Your task to perform on an android device: Go to settings Image 0: 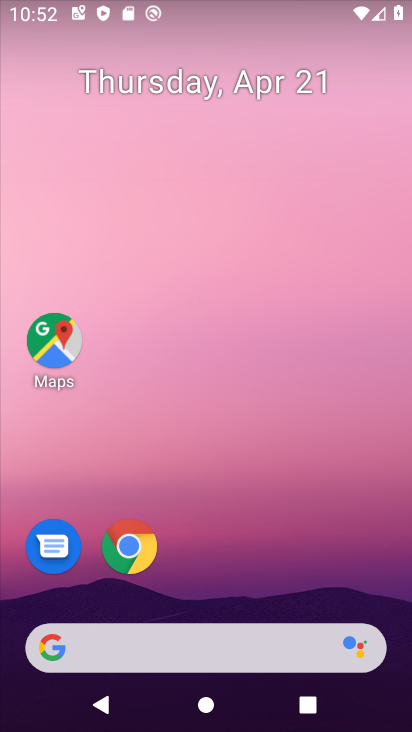
Step 0: drag from (301, 580) to (301, 101)
Your task to perform on an android device: Go to settings Image 1: 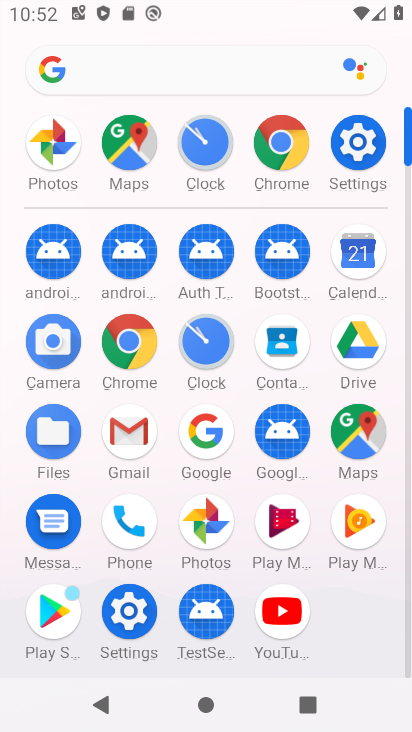
Step 1: click (124, 617)
Your task to perform on an android device: Go to settings Image 2: 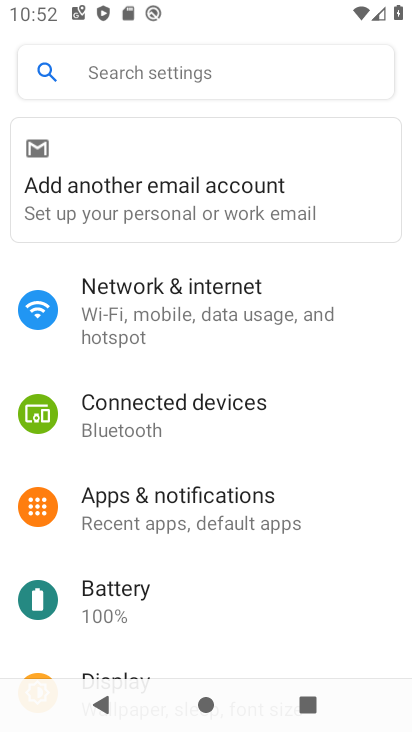
Step 2: task complete